Your task to perform on an android device: Go to Google Image 0: 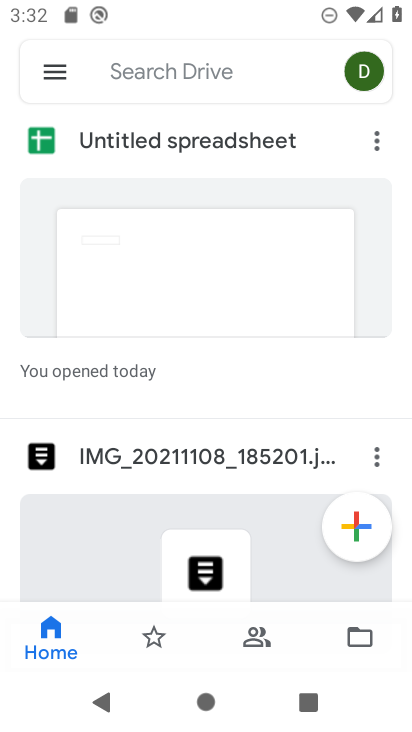
Step 0: press home button
Your task to perform on an android device: Go to Google Image 1: 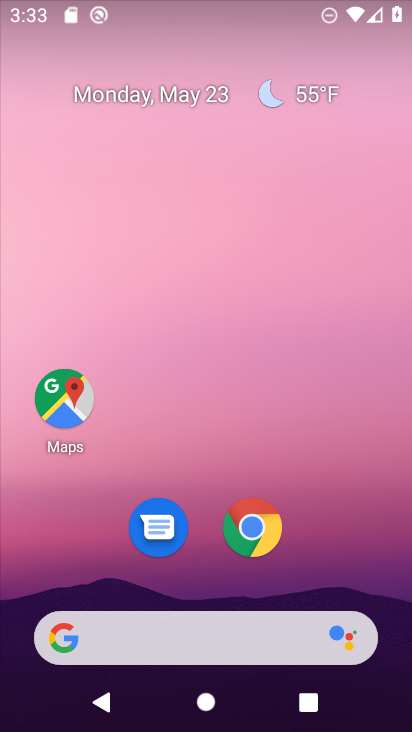
Step 1: drag from (214, 580) to (242, 57)
Your task to perform on an android device: Go to Google Image 2: 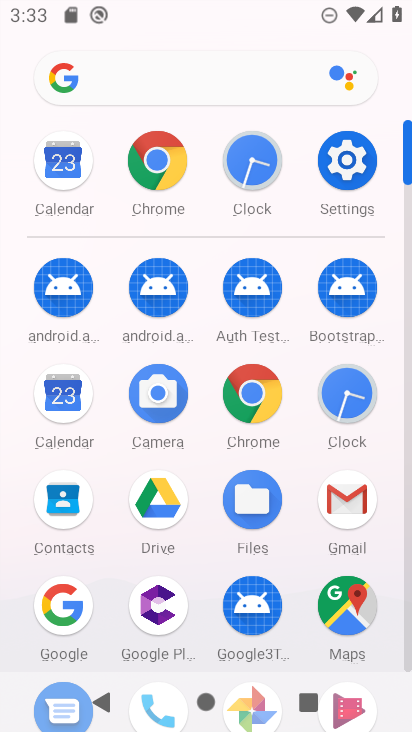
Step 2: click (57, 601)
Your task to perform on an android device: Go to Google Image 3: 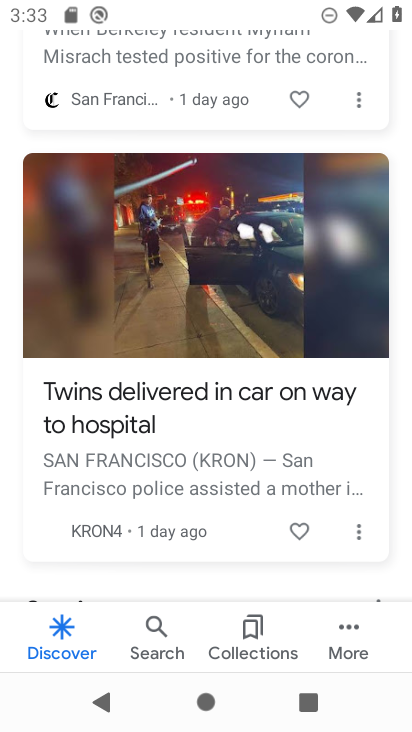
Step 3: task complete